Your task to perform on an android device: toggle data saver in the chrome app Image 0: 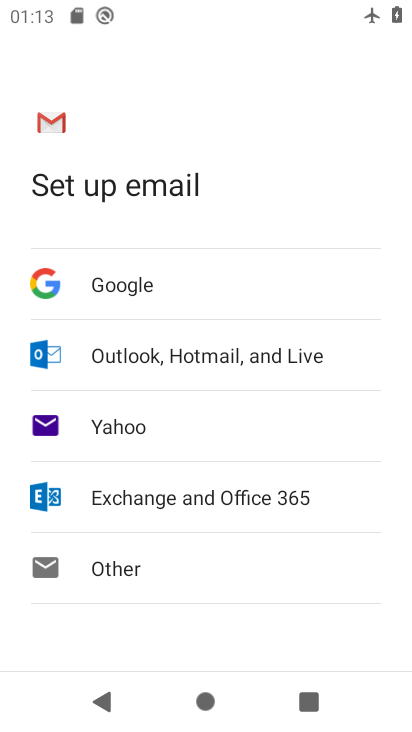
Step 0: press home button
Your task to perform on an android device: toggle data saver in the chrome app Image 1: 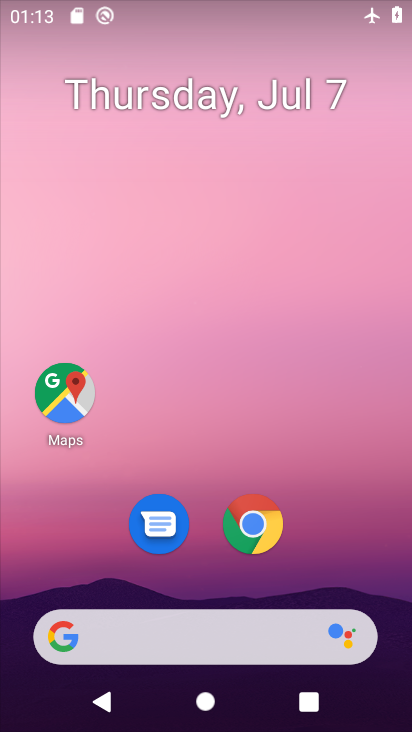
Step 1: click (254, 532)
Your task to perform on an android device: toggle data saver in the chrome app Image 2: 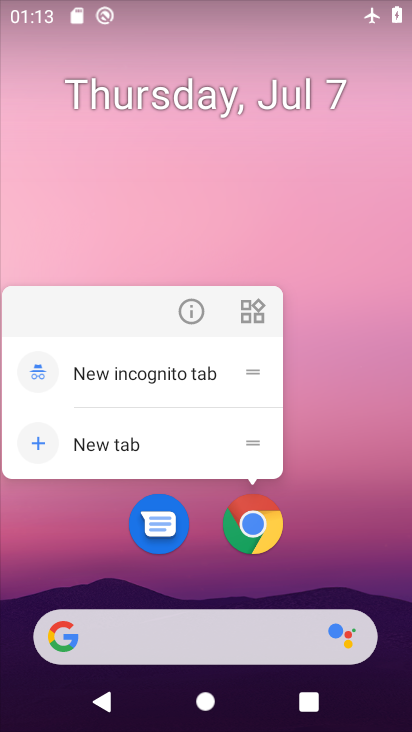
Step 2: click (255, 542)
Your task to perform on an android device: toggle data saver in the chrome app Image 3: 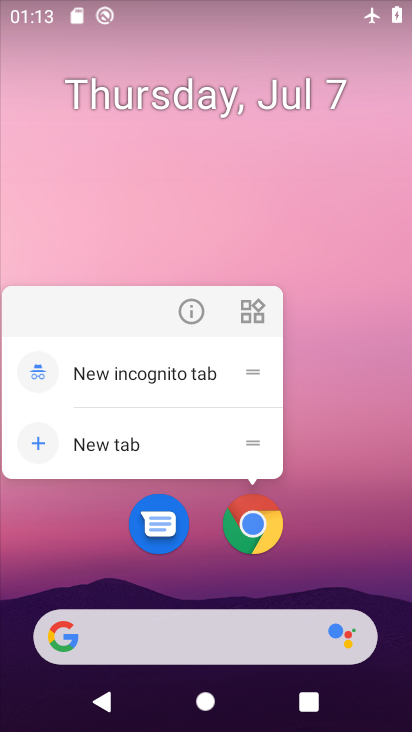
Step 3: click (255, 544)
Your task to perform on an android device: toggle data saver in the chrome app Image 4: 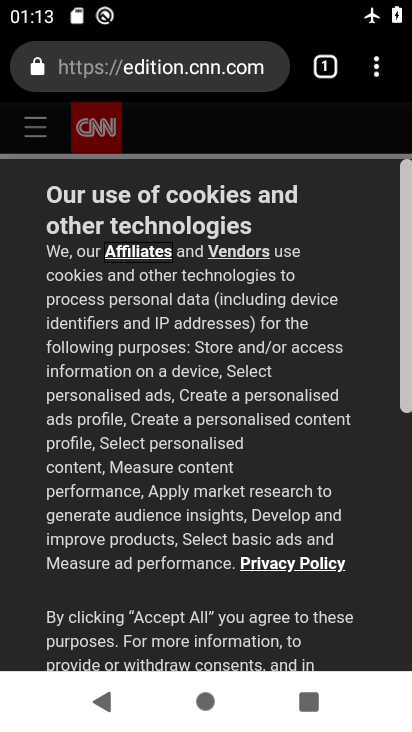
Step 4: click (375, 69)
Your task to perform on an android device: toggle data saver in the chrome app Image 5: 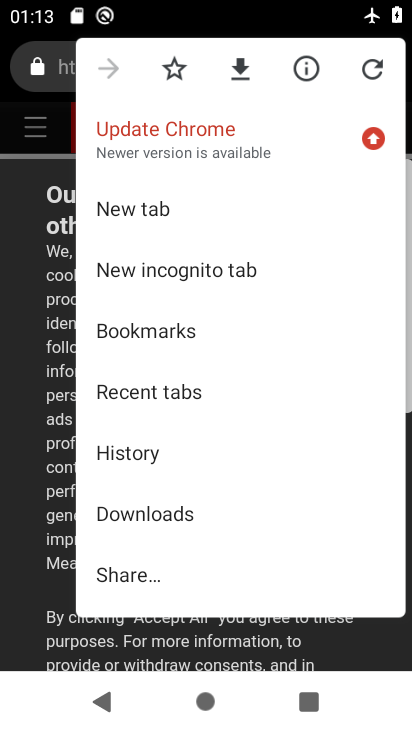
Step 5: drag from (228, 498) to (244, 218)
Your task to perform on an android device: toggle data saver in the chrome app Image 6: 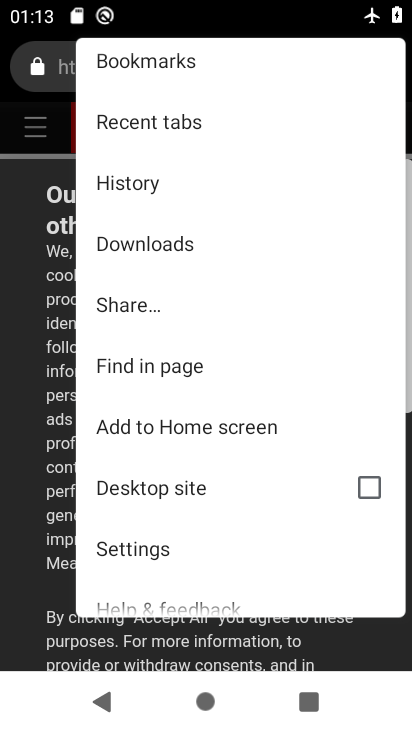
Step 6: click (166, 542)
Your task to perform on an android device: toggle data saver in the chrome app Image 7: 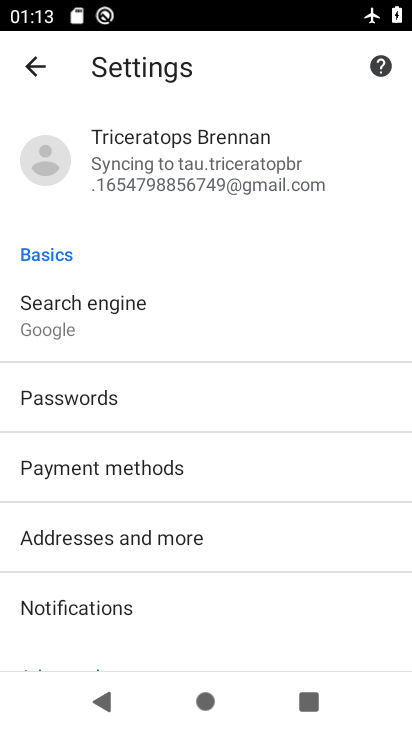
Step 7: drag from (206, 578) to (249, 194)
Your task to perform on an android device: toggle data saver in the chrome app Image 8: 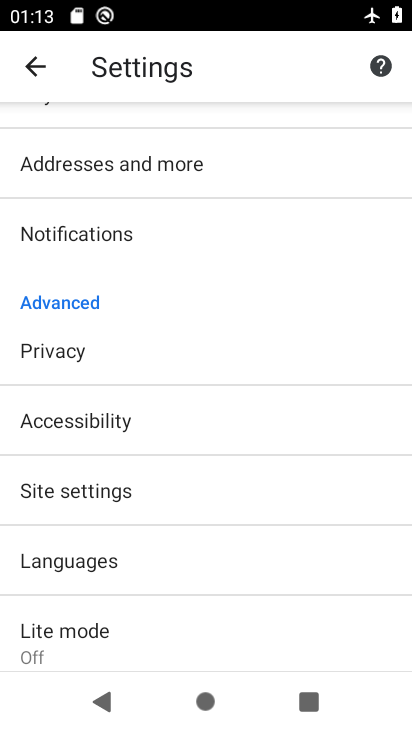
Step 8: click (128, 487)
Your task to perform on an android device: toggle data saver in the chrome app Image 9: 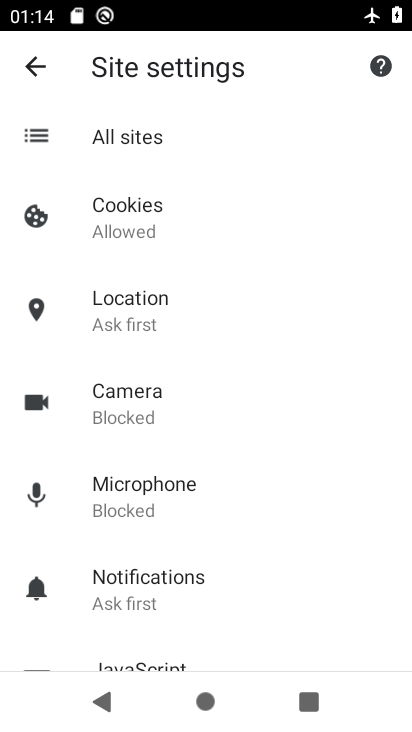
Step 9: click (29, 58)
Your task to perform on an android device: toggle data saver in the chrome app Image 10: 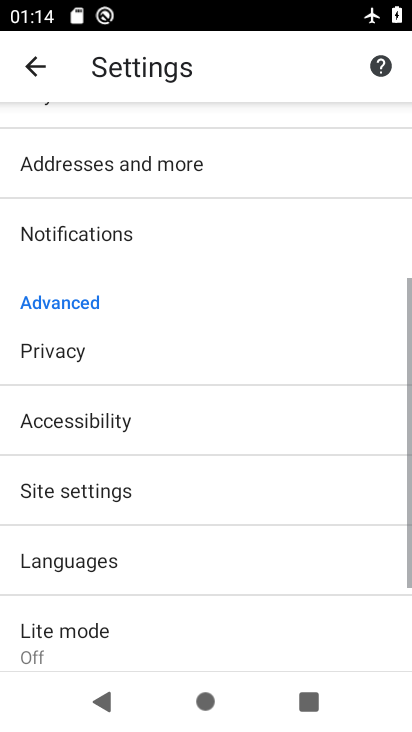
Step 10: drag from (199, 583) to (217, 233)
Your task to perform on an android device: toggle data saver in the chrome app Image 11: 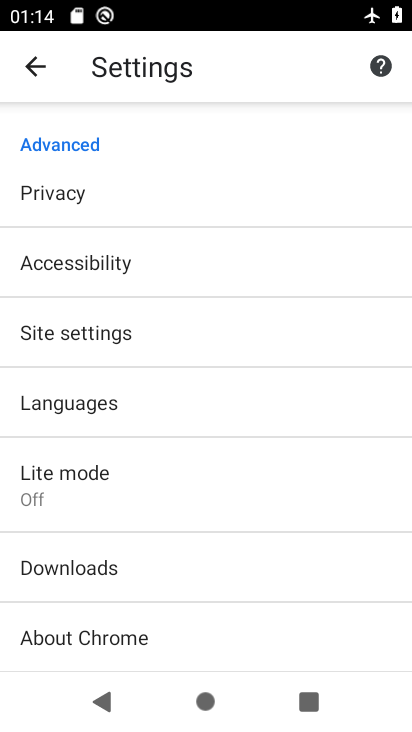
Step 11: click (146, 502)
Your task to perform on an android device: toggle data saver in the chrome app Image 12: 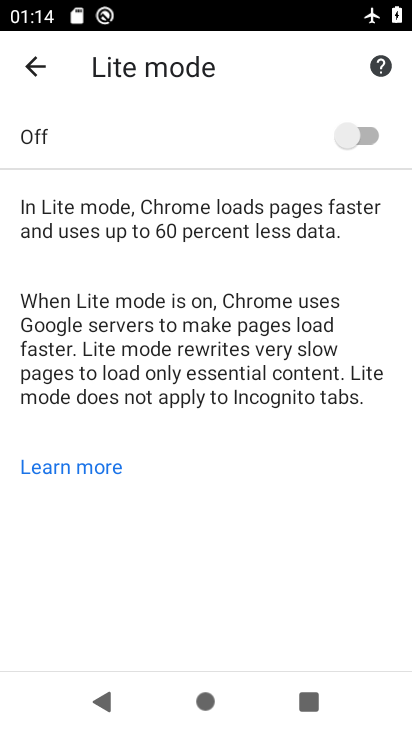
Step 12: click (364, 126)
Your task to perform on an android device: toggle data saver in the chrome app Image 13: 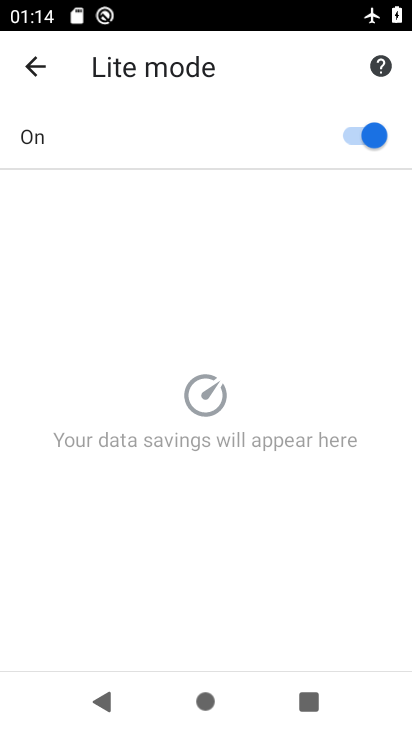
Step 13: task complete